Your task to perform on an android device: open app "PUBG MOBILE" (install if not already installed) and enter user name: "phenomenologically@gmail.com" and password: "artillery" Image 0: 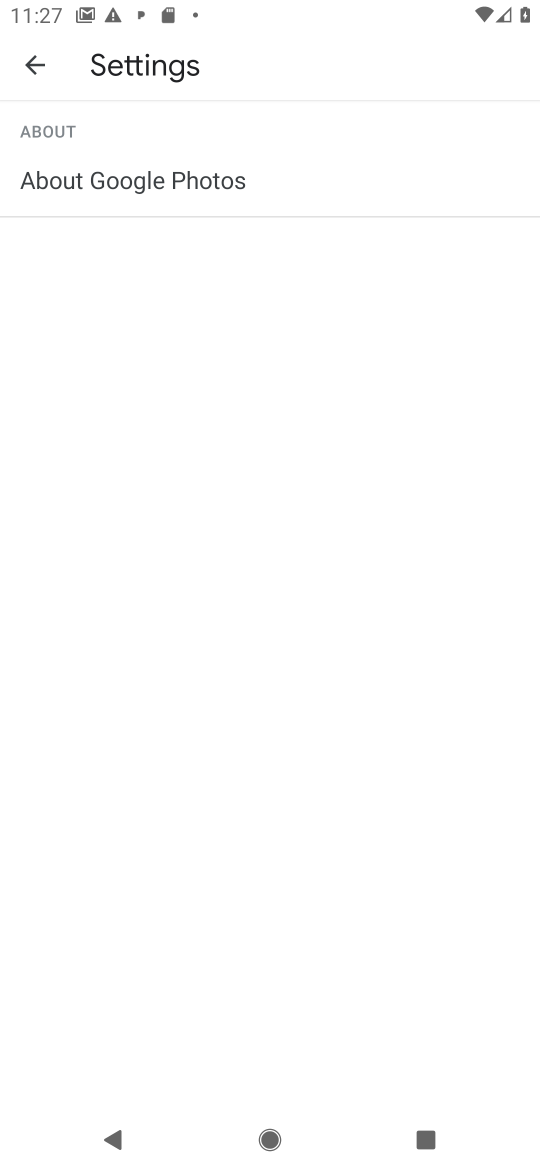
Step 0: press home button
Your task to perform on an android device: open app "PUBG MOBILE" (install if not already installed) and enter user name: "phenomenologically@gmail.com" and password: "artillery" Image 1: 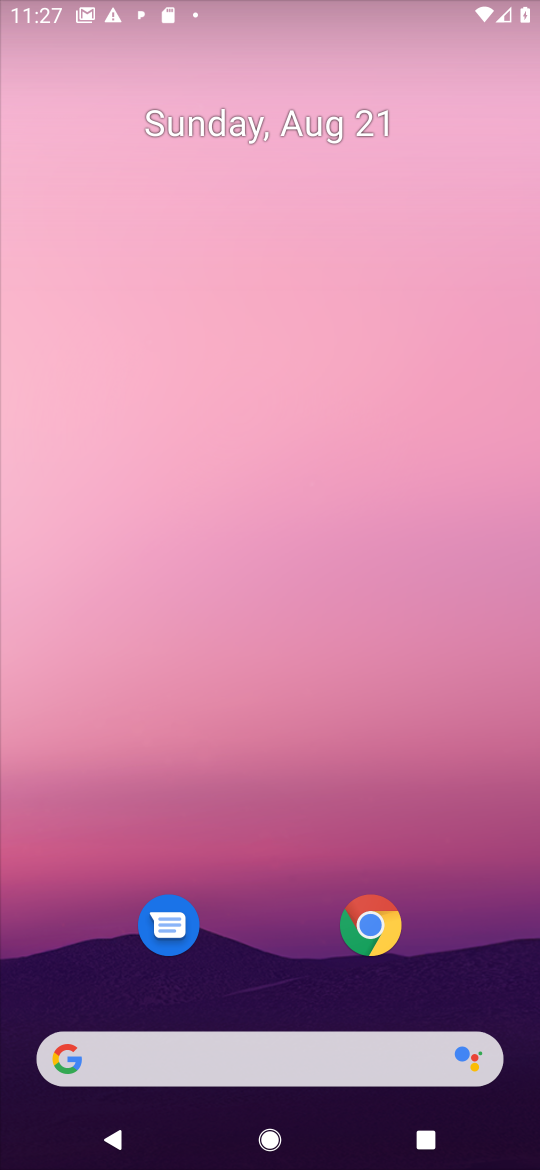
Step 1: drag from (266, 929) to (353, 14)
Your task to perform on an android device: open app "PUBG MOBILE" (install if not already installed) and enter user name: "phenomenologically@gmail.com" and password: "artillery" Image 2: 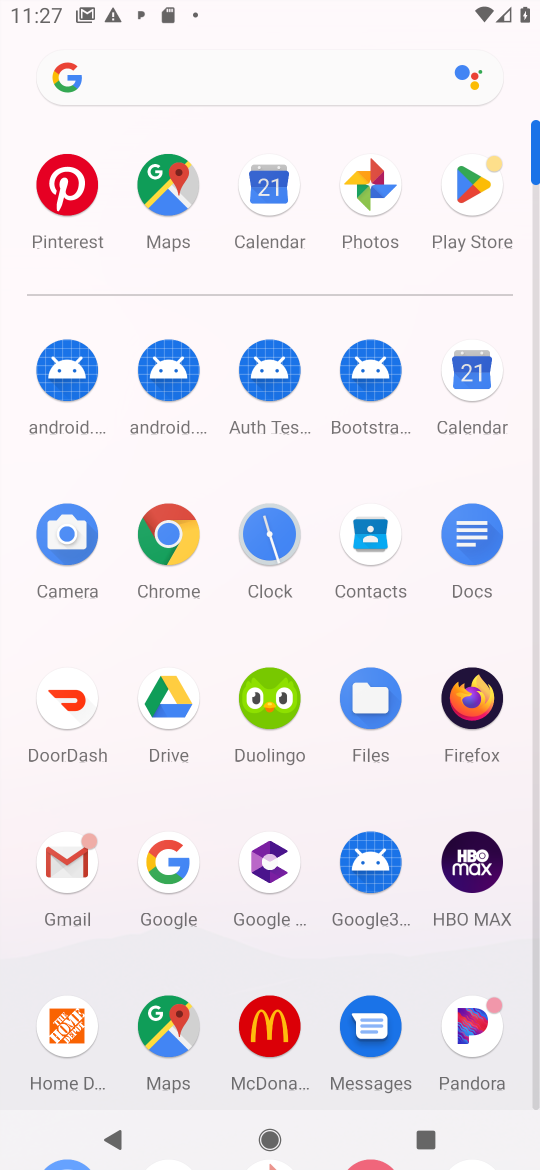
Step 2: click (472, 194)
Your task to perform on an android device: open app "PUBG MOBILE" (install if not already installed) and enter user name: "phenomenologically@gmail.com" and password: "artillery" Image 3: 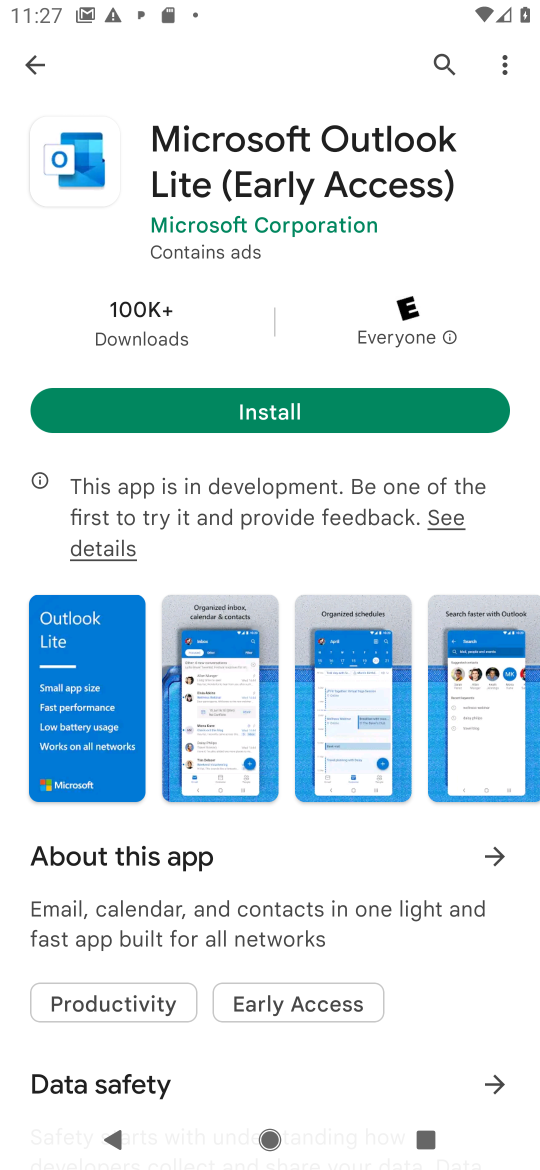
Step 3: click (443, 54)
Your task to perform on an android device: open app "PUBG MOBILE" (install if not already installed) and enter user name: "phenomenologically@gmail.com" and password: "artillery" Image 4: 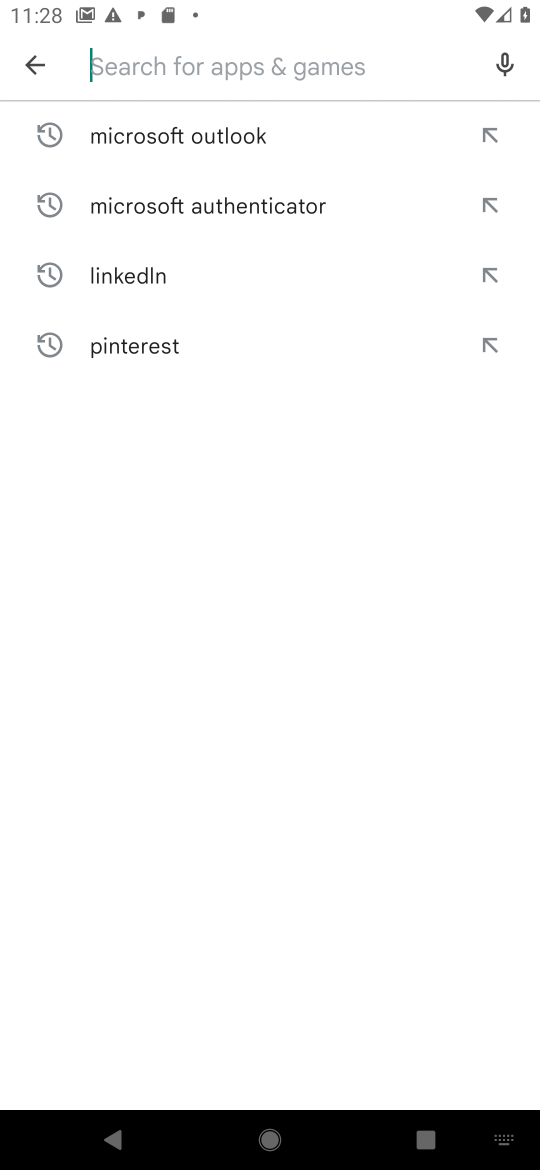
Step 4: click (278, 68)
Your task to perform on an android device: open app "PUBG MOBILE" (install if not already installed) and enter user name: "phenomenologically@gmail.com" and password: "artillery" Image 5: 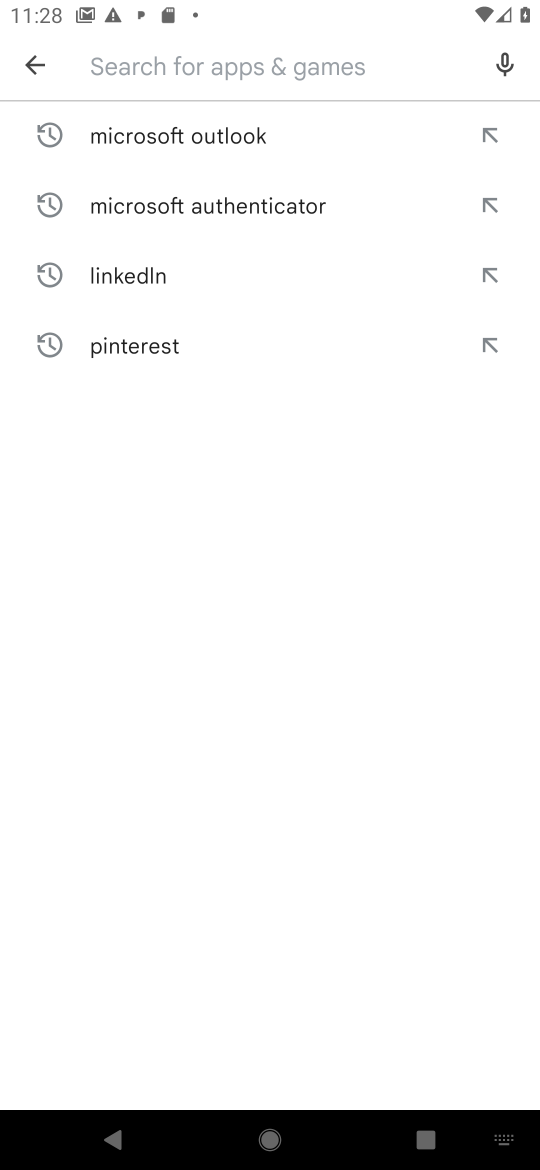
Step 5: click (143, 43)
Your task to perform on an android device: open app "PUBG MOBILE" (install if not already installed) and enter user name: "phenomenologically@gmail.com" and password: "artillery" Image 6: 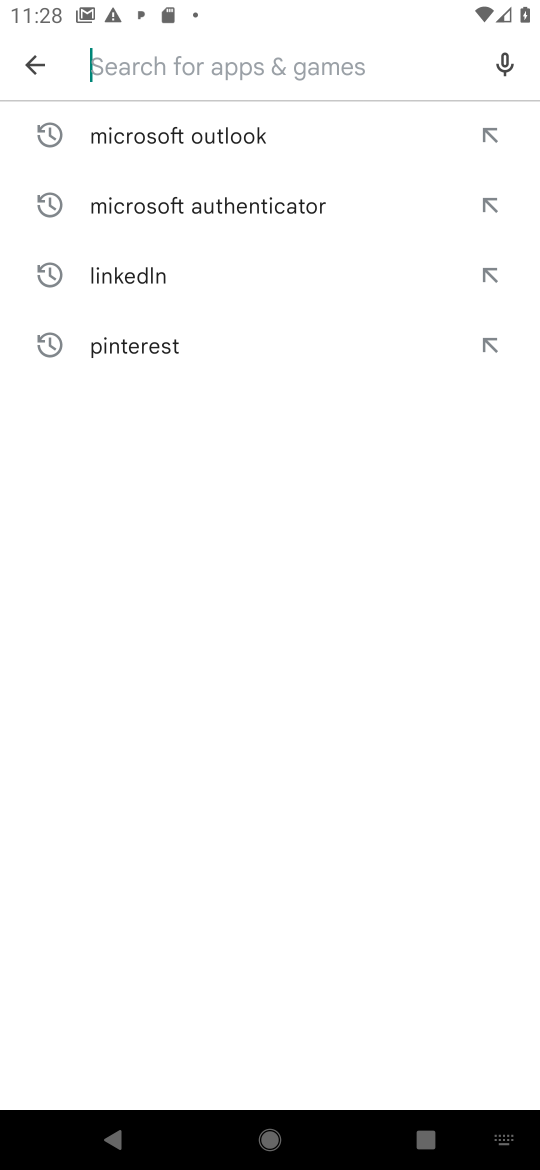
Step 6: type "PUBG MOBILE"
Your task to perform on an android device: open app "PUBG MOBILE" (install if not already installed) and enter user name: "phenomenologically@gmail.com" and password: "artillery" Image 7: 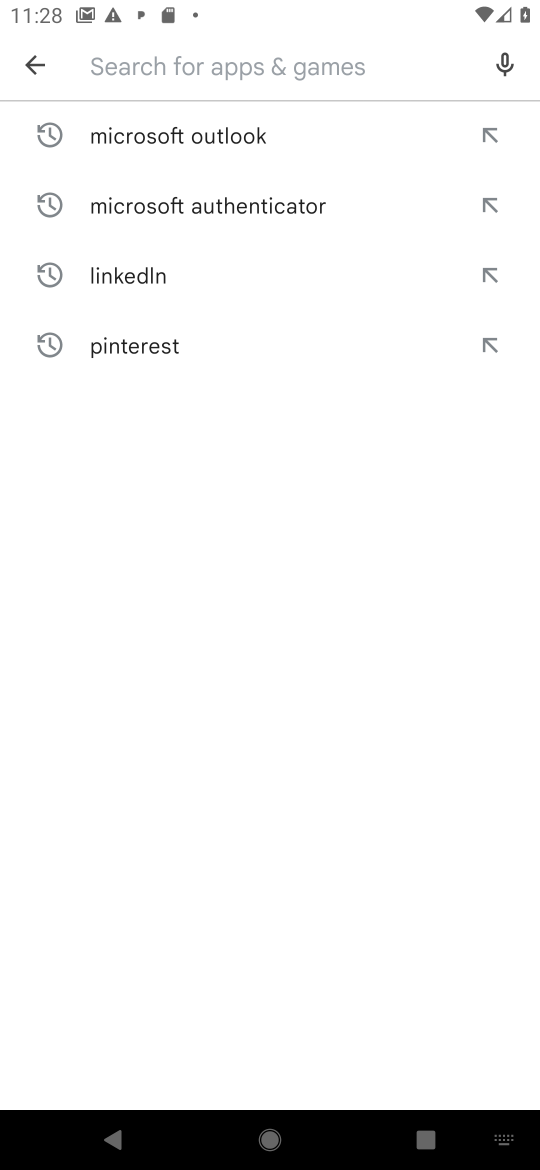
Step 7: click (175, 701)
Your task to perform on an android device: open app "PUBG MOBILE" (install if not already installed) and enter user name: "phenomenologically@gmail.com" and password: "artillery" Image 8: 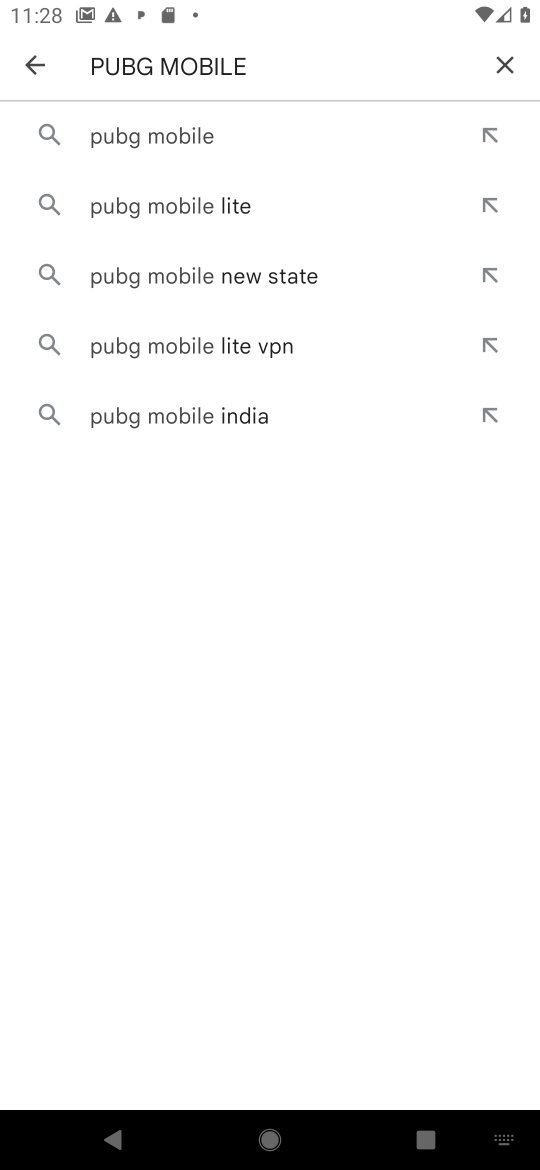
Step 8: click (127, 122)
Your task to perform on an android device: open app "PUBG MOBILE" (install if not already installed) and enter user name: "phenomenologically@gmail.com" and password: "artillery" Image 9: 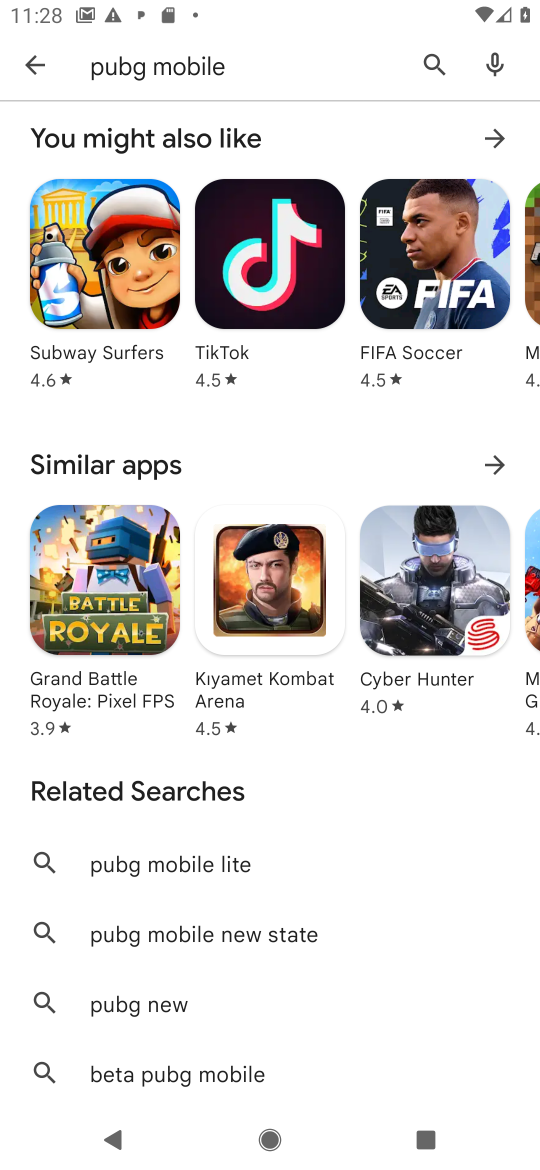
Step 9: task complete